Your task to perform on an android device: Open CNN.com Image 0: 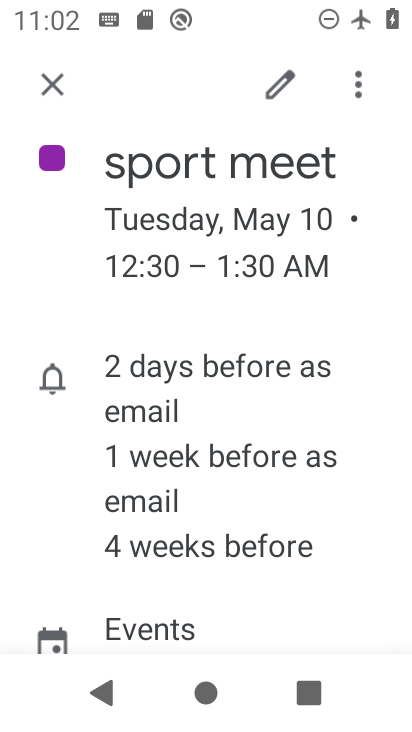
Step 0: press home button
Your task to perform on an android device: Open CNN.com Image 1: 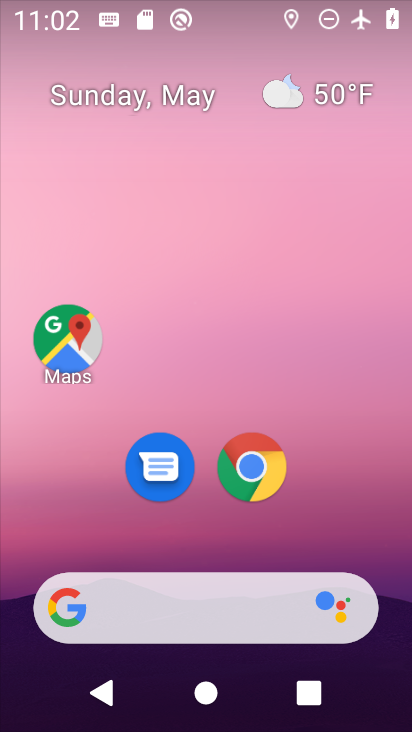
Step 1: click (264, 458)
Your task to perform on an android device: Open CNN.com Image 2: 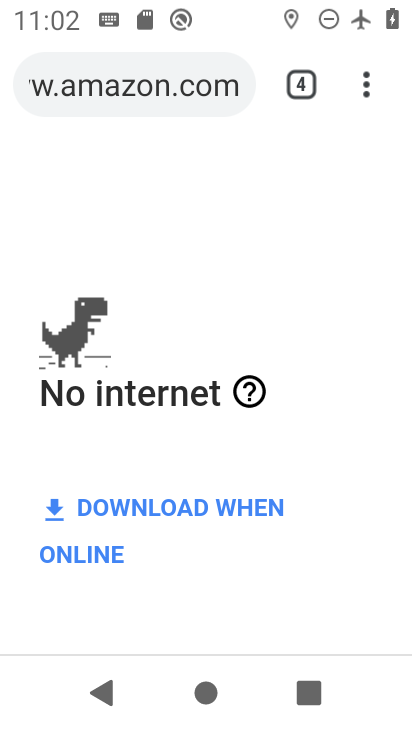
Step 2: task complete